Your task to perform on an android device: Open the phone app and click the voicemail tab. Image 0: 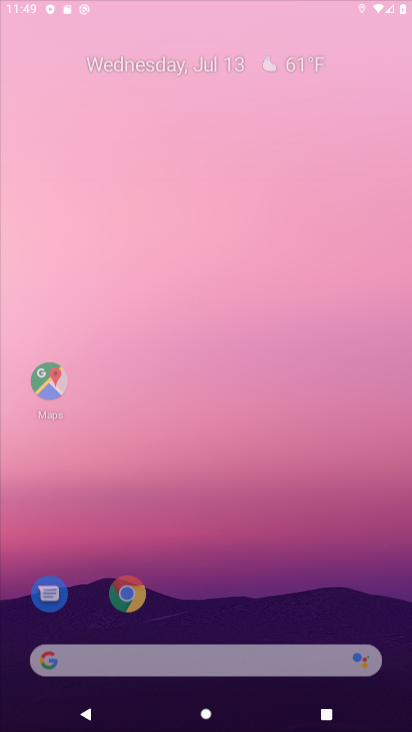
Step 0: click (169, 283)
Your task to perform on an android device: Open the phone app and click the voicemail tab. Image 1: 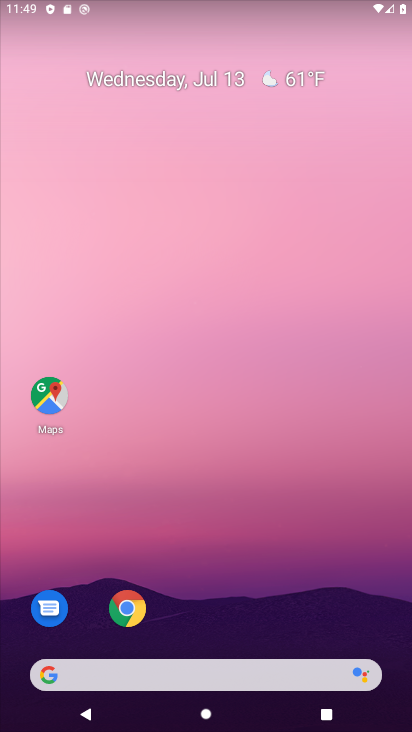
Step 1: drag from (186, 626) to (193, 142)
Your task to perform on an android device: Open the phone app and click the voicemail tab. Image 2: 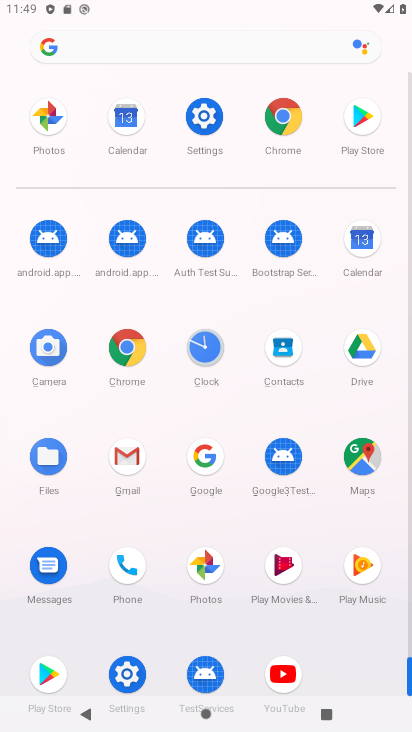
Step 2: click (128, 565)
Your task to perform on an android device: Open the phone app and click the voicemail tab. Image 3: 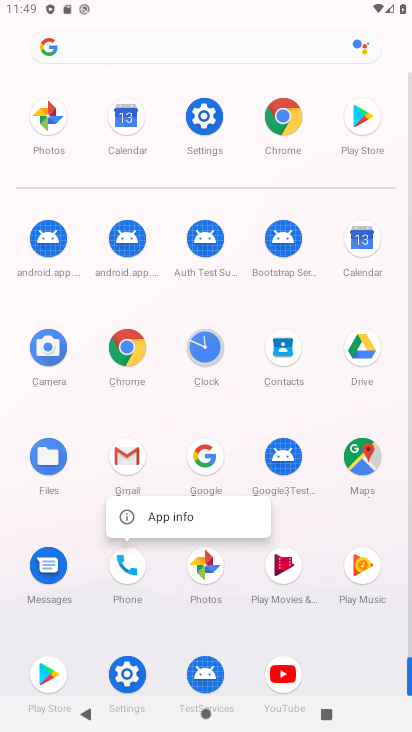
Step 3: click (153, 520)
Your task to perform on an android device: Open the phone app and click the voicemail tab. Image 4: 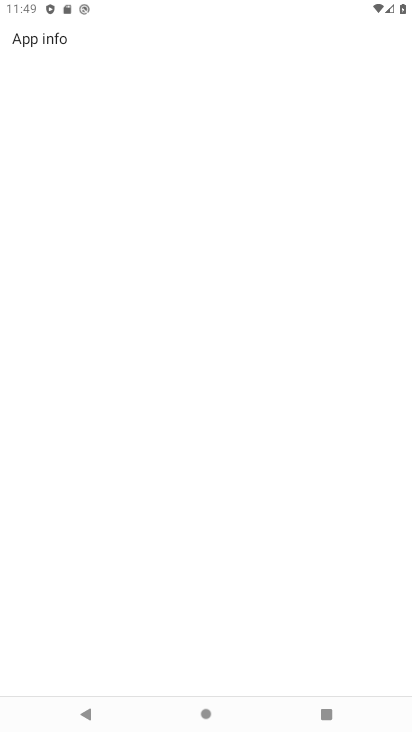
Step 4: drag from (140, 658) to (245, 128)
Your task to perform on an android device: Open the phone app and click the voicemail tab. Image 5: 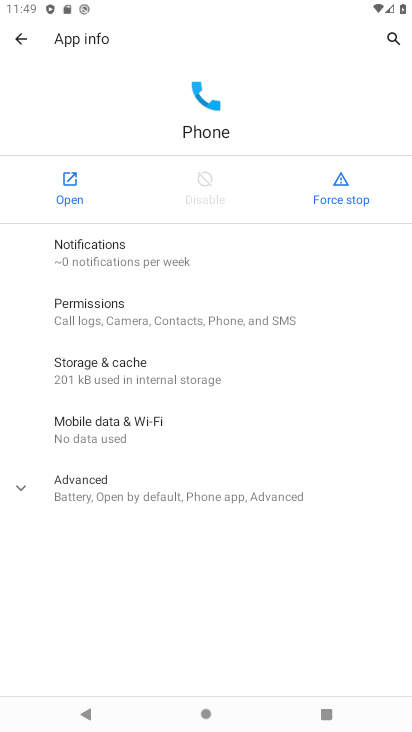
Step 5: click (76, 182)
Your task to perform on an android device: Open the phone app and click the voicemail tab. Image 6: 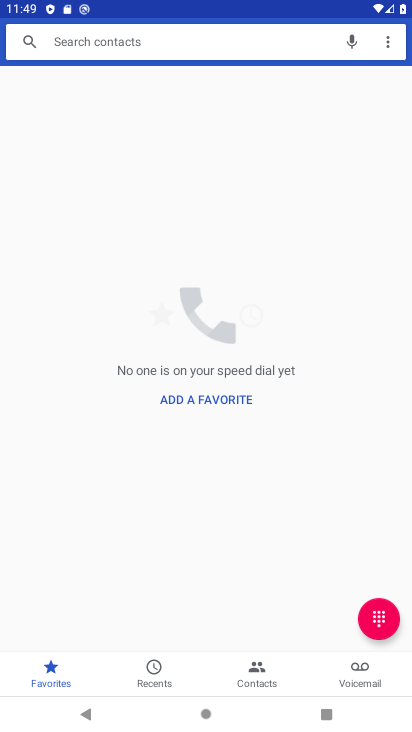
Step 6: click (71, 188)
Your task to perform on an android device: Open the phone app and click the voicemail tab. Image 7: 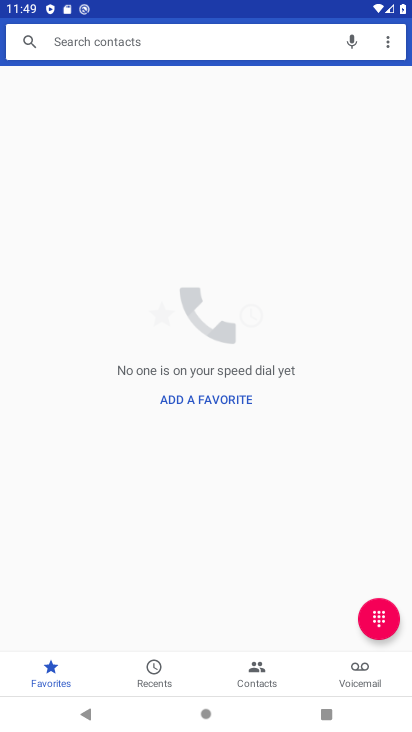
Step 7: click (352, 674)
Your task to perform on an android device: Open the phone app and click the voicemail tab. Image 8: 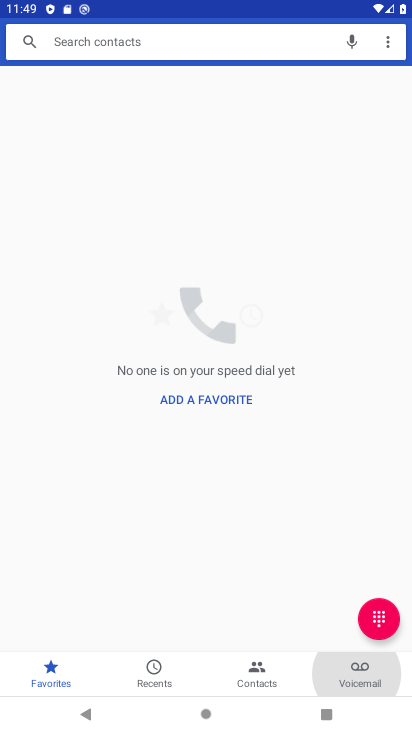
Step 8: click (352, 674)
Your task to perform on an android device: Open the phone app and click the voicemail tab. Image 9: 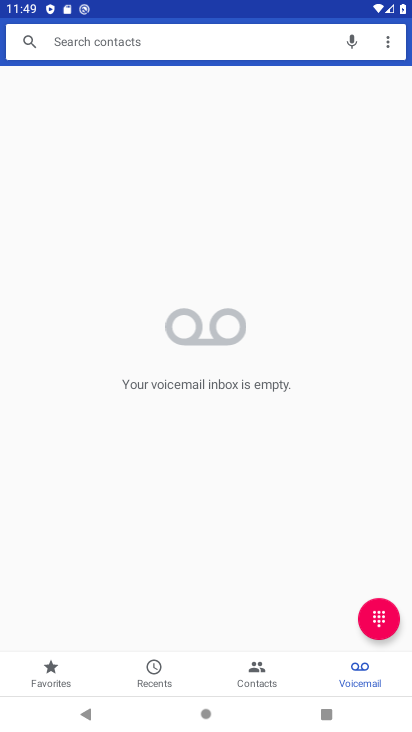
Step 9: click (200, 455)
Your task to perform on an android device: Open the phone app and click the voicemail tab. Image 10: 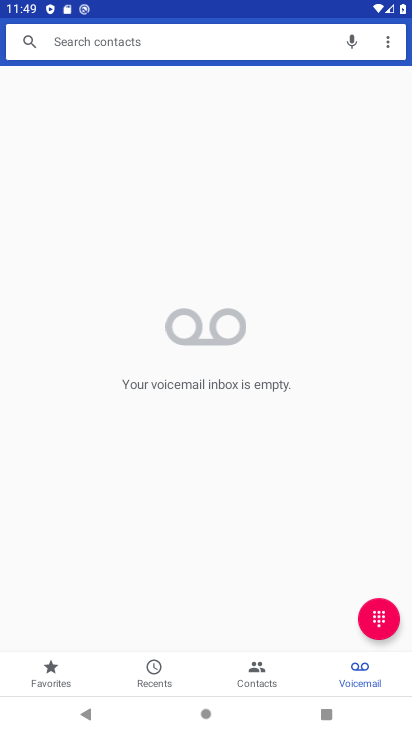
Step 10: drag from (210, 446) to (238, 234)
Your task to perform on an android device: Open the phone app and click the voicemail tab. Image 11: 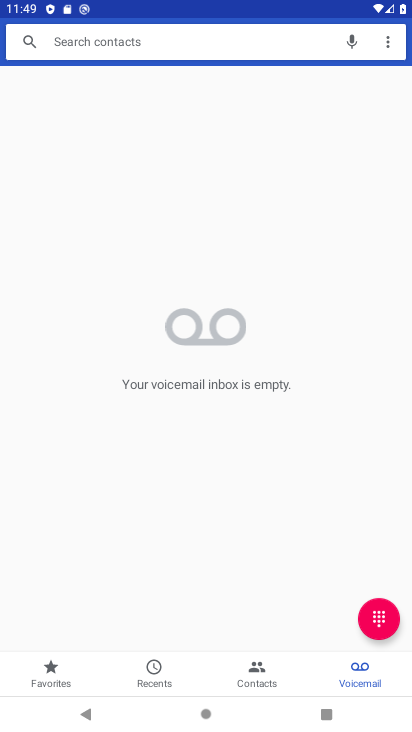
Step 11: click (362, 697)
Your task to perform on an android device: Open the phone app and click the voicemail tab. Image 12: 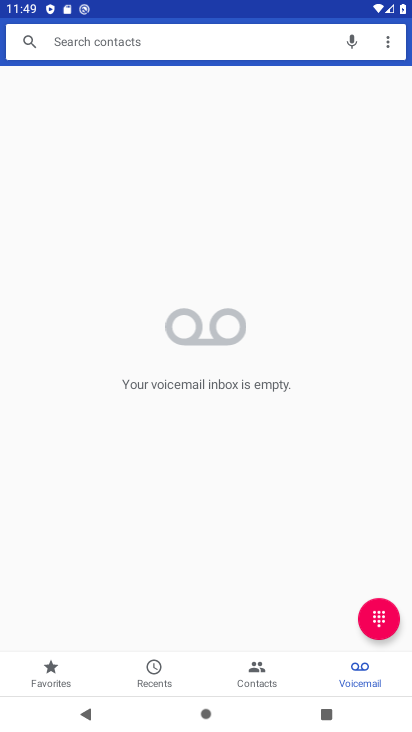
Step 12: task complete